Your task to perform on an android device: Open the Play Movies app and select the watchlist tab. Image 0: 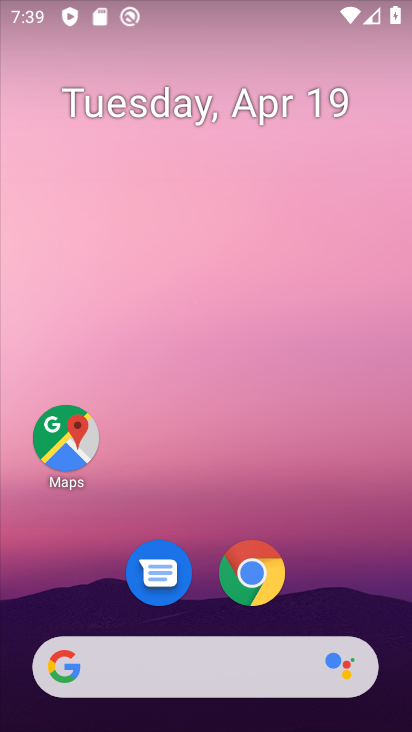
Step 0: drag from (307, 480) to (306, 153)
Your task to perform on an android device: Open the Play Movies app and select the watchlist tab. Image 1: 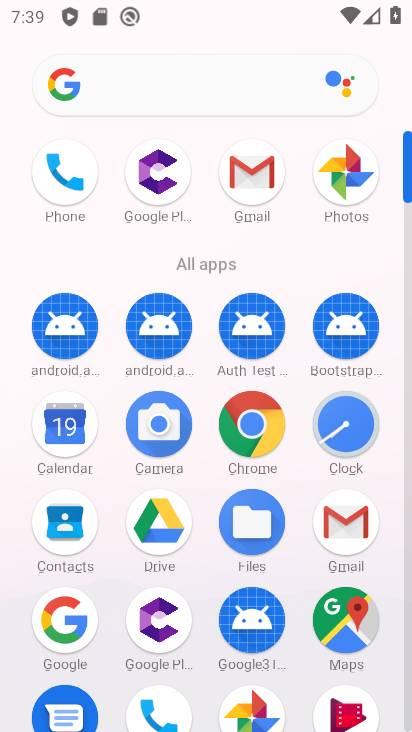
Step 1: drag from (299, 566) to (306, 304)
Your task to perform on an android device: Open the Play Movies app and select the watchlist tab. Image 2: 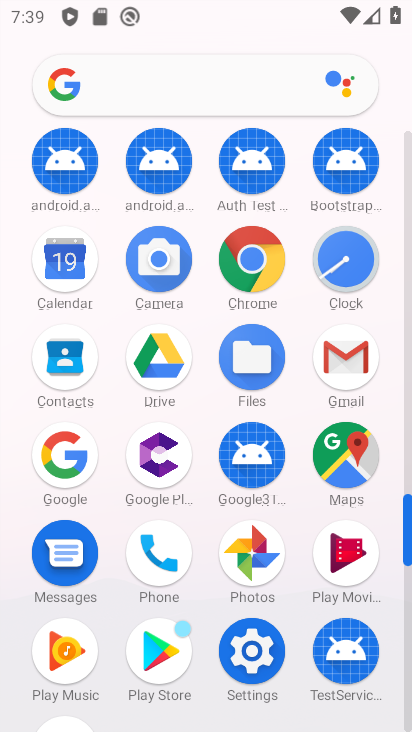
Step 2: click (347, 550)
Your task to perform on an android device: Open the Play Movies app and select the watchlist tab. Image 3: 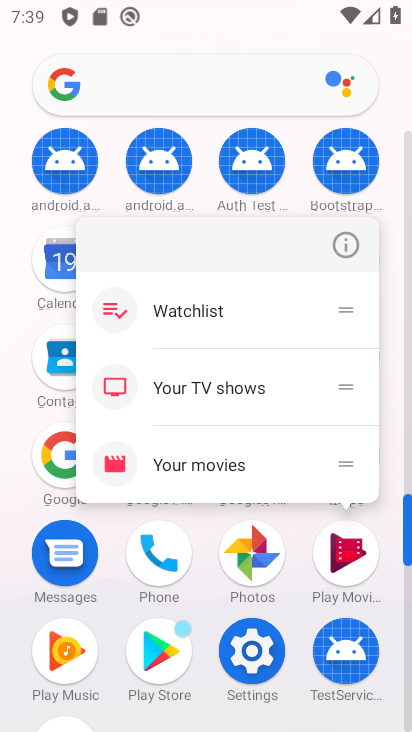
Step 3: click (346, 548)
Your task to perform on an android device: Open the Play Movies app and select the watchlist tab. Image 4: 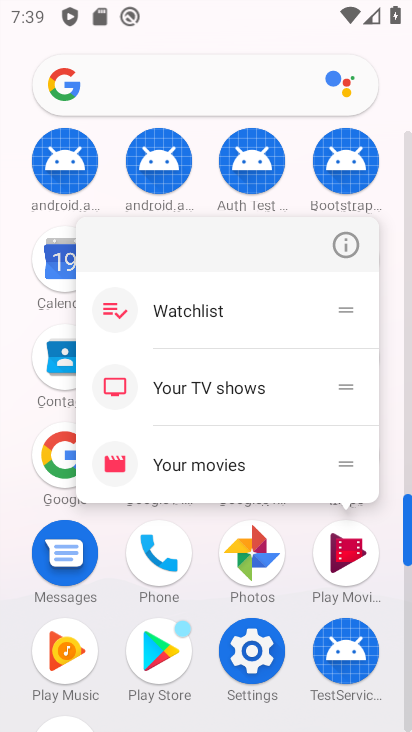
Step 4: click (350, 568)
Your task to perform on an android device: Open the Play Movies app and select the watchlist tab. Image 5: 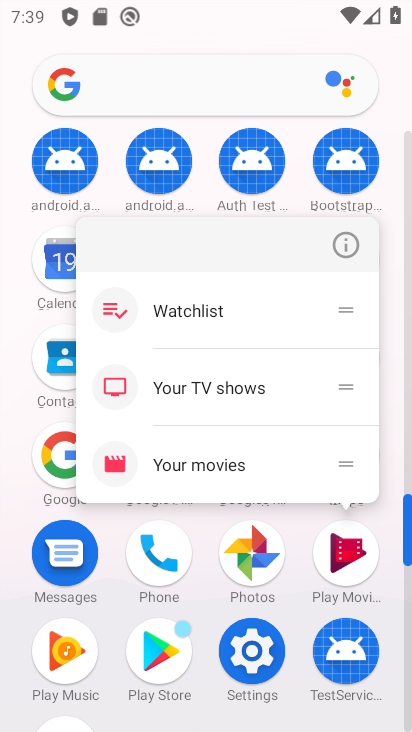
Step 5: click (350, 552)
Your task to perform on an android device: Open the Play Movies app and select the watchlist tab. Image 6: 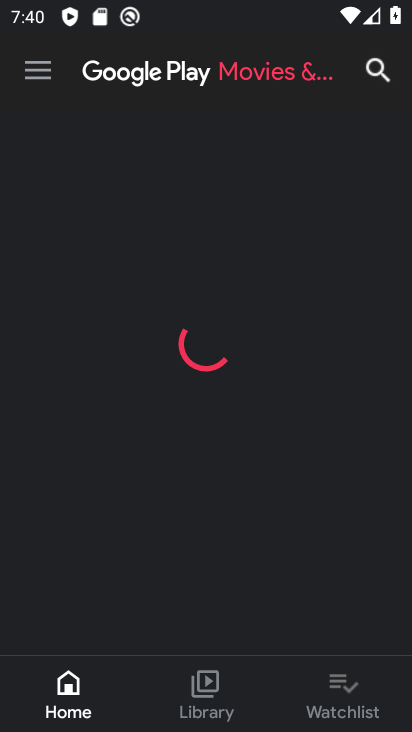
Step 6: click (327, 687)
Your task to perform on an android device: Open the Play Movies app and select the watchlist tab. Image 7: 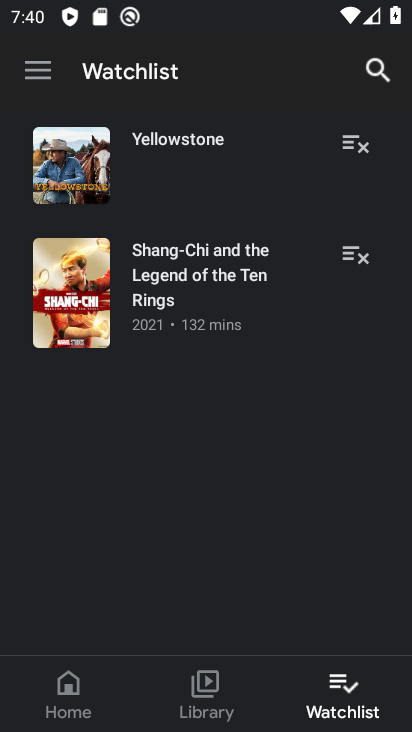
Step 7: task complete